Your task to perform on an android device: turn on airplane mode Image 0: 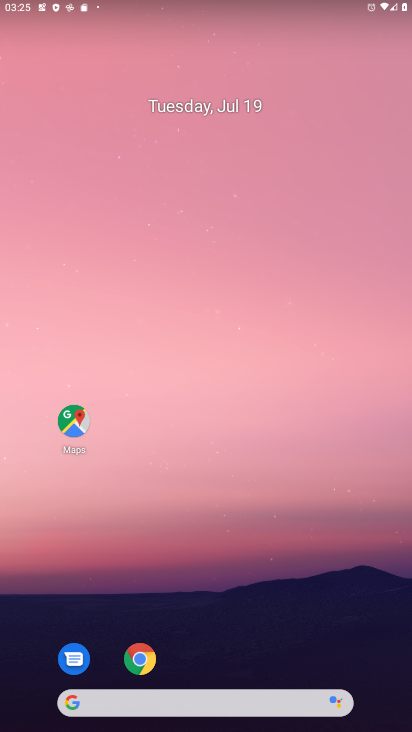
Step 0: press home button
Your task to perform on an android device: turn on airplane mode Image 1: 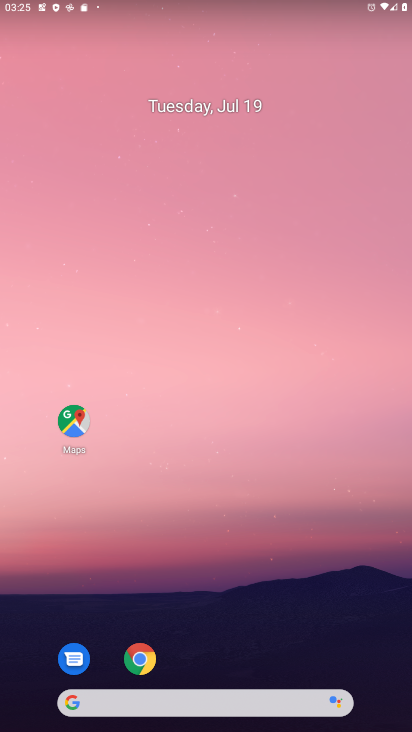
Step 1: drag from (294, 12) to (169, 412)
Your task to perform on an android device: turn on airplane mode Image 2: 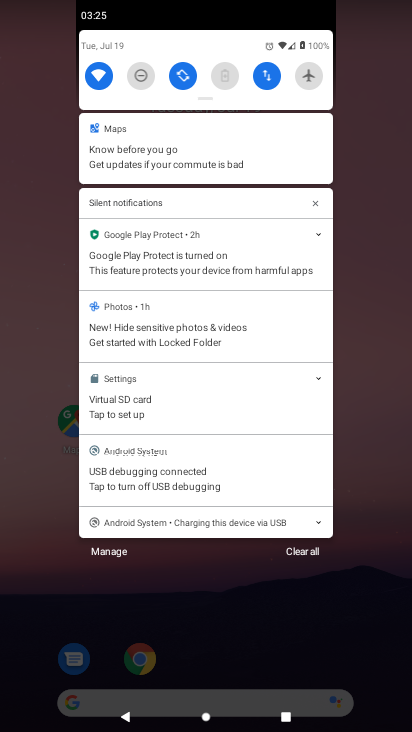
Step 2: click (307, 82)
Your task to perform on an android device: turn on airplane mode Image 3: 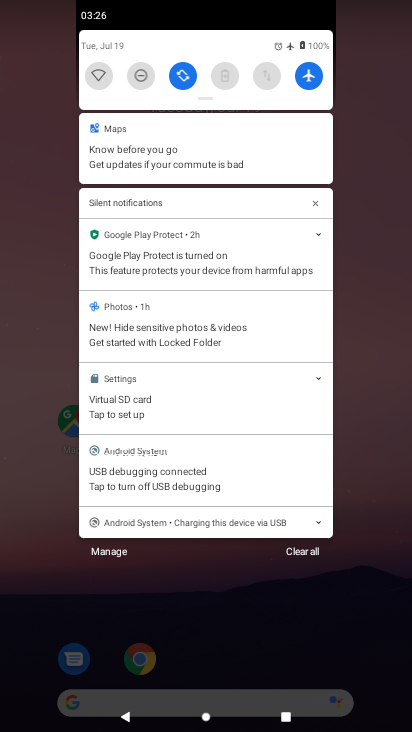
Step 3: task complete